Your task to perform on an android device: Do I have any events today? Image 0: 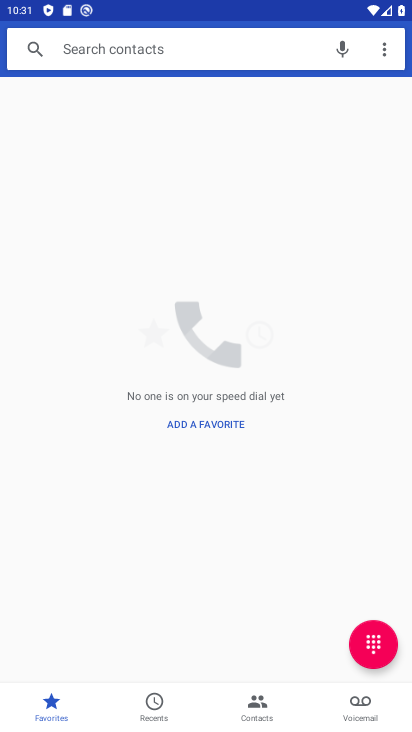
Step 0: press home button
Your task to perform on an android device: Do I have any events today? Image 1: 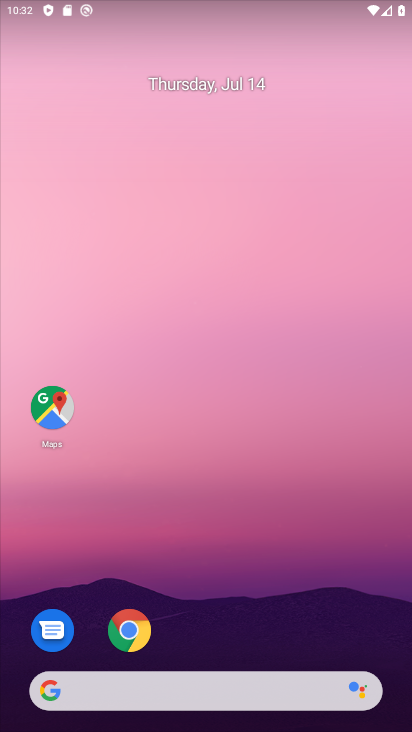
Step 1: drag from (257, 639) to (218, 153)
Your task to perform on an android device: Do I have any events today? Image 2: 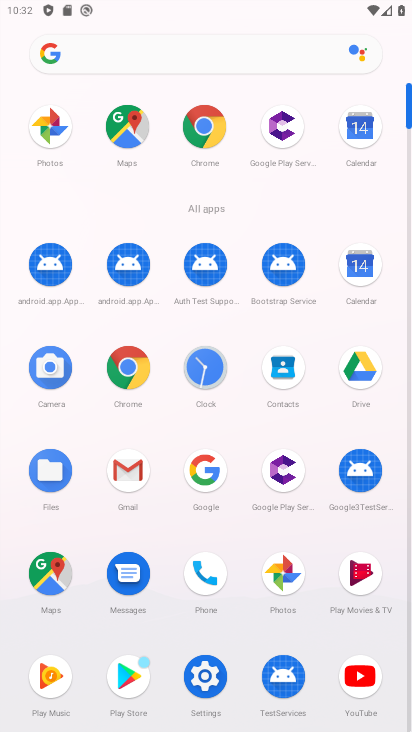
Step 2: click (368, 261)
Your task to perform on an android device: Do I have any events today? Image 3: 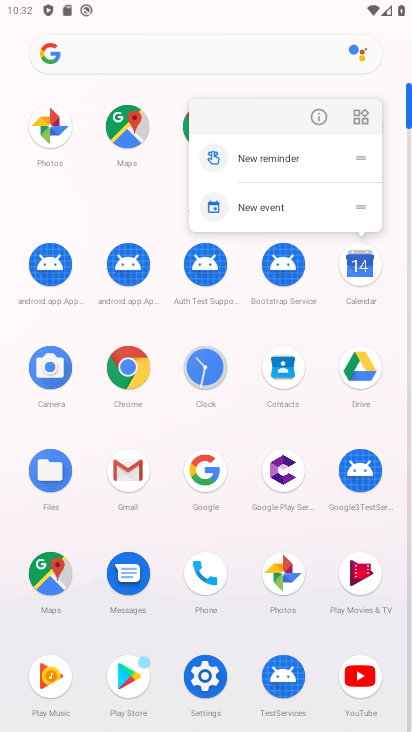
Step 3: click (335, 263)
Your task to perform on an android device: Do I have any events today? Image 4: 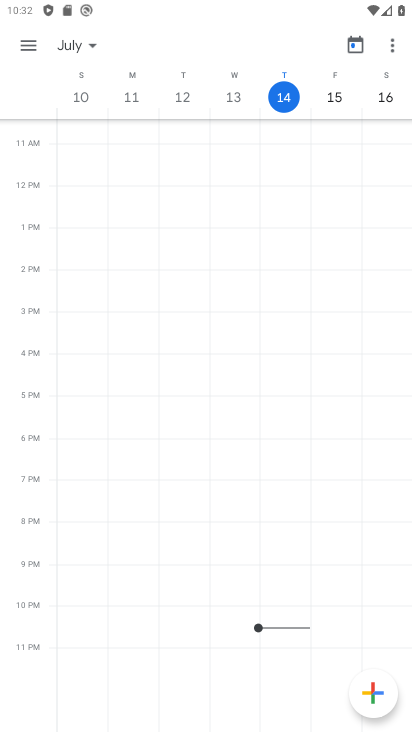
Step 4: click (337, 103)
Your task to perform on an android device: Do I have any events today? Image 5: 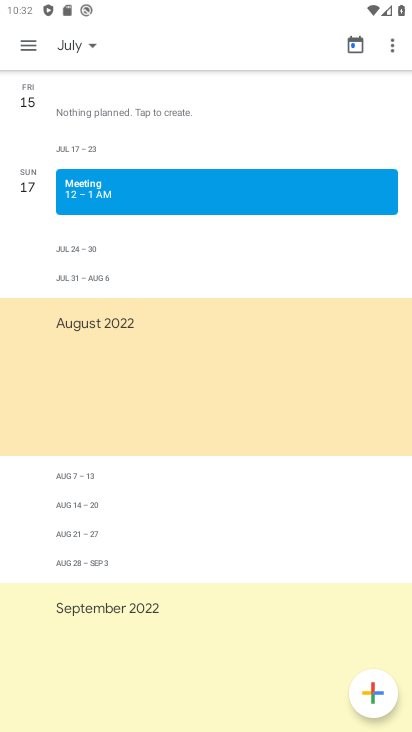
Step 5: task complete